Your task to perform on an android device: Go to wifi settings Image 0: 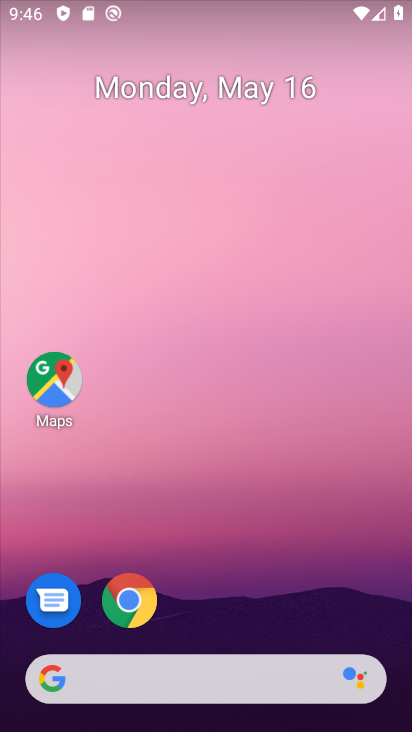
Step 0: drag from (308, 550) to (309, 158)
Your task to perform on an android device: Go to wifi settings Image 1: 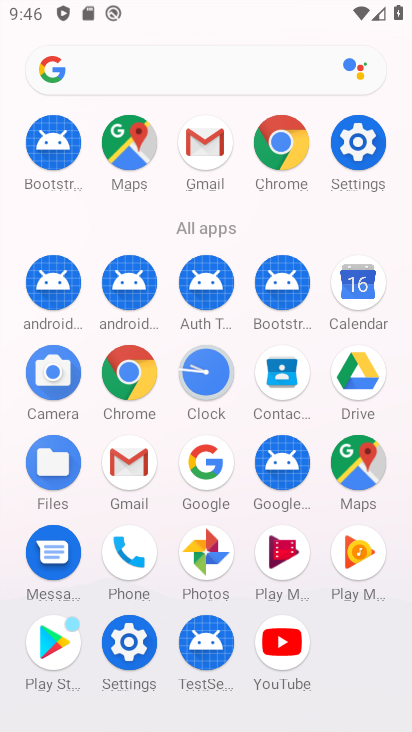
Step 1: click (131, 627)
Your task to perform on an android device: Go to wifi settings Image 2: 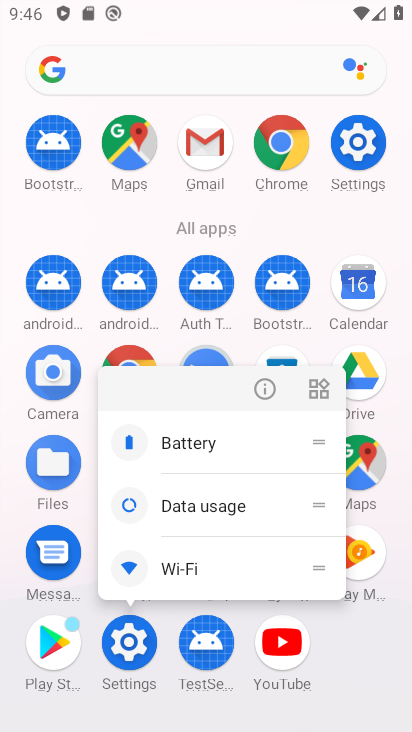
Step 2: click (120, 637)
Your task to perform on an android device: Go to wifi settings Image 3: 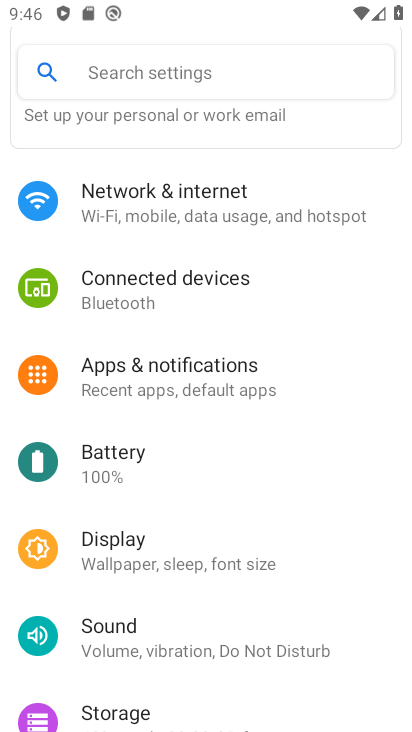
Step 3: click (204, 195)
Your task to perform on an android device: Go to wifi settings Image 4: 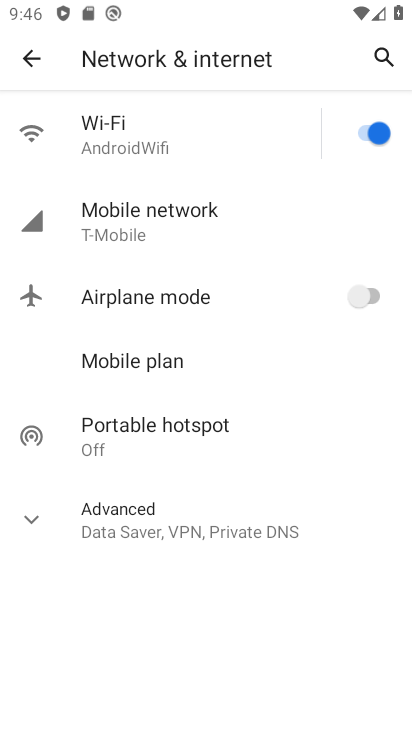
Step 4: click (205, 141)
Your task to perform on an android device: Go to wifi settings Image 5: 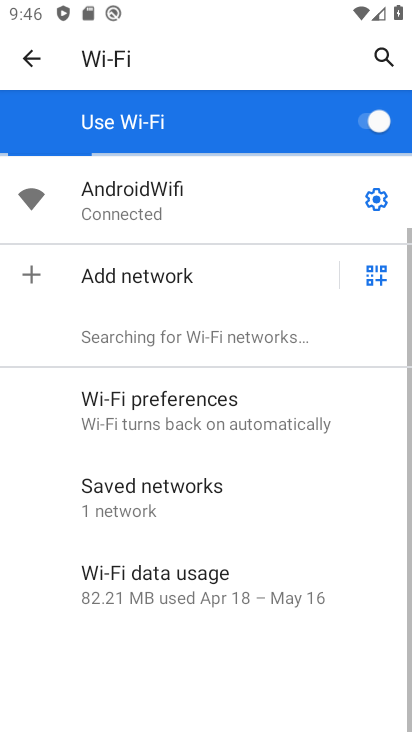
Step 5: click (382, 189)
Your task to perform on an android device: Go to wifi settings Image 6: 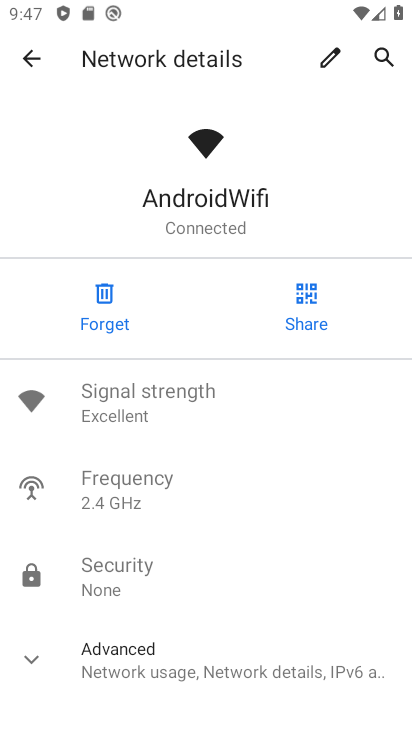
Step 6: task complete